Your task to perform on an android device: clear history in the chrome app Image 0: 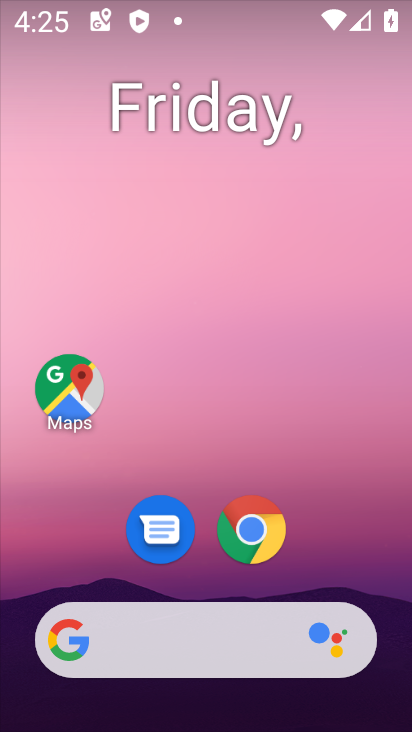
Step 0: click (258, 529)
Your task to perform on an android device: clear history in the chrome app Image 1: 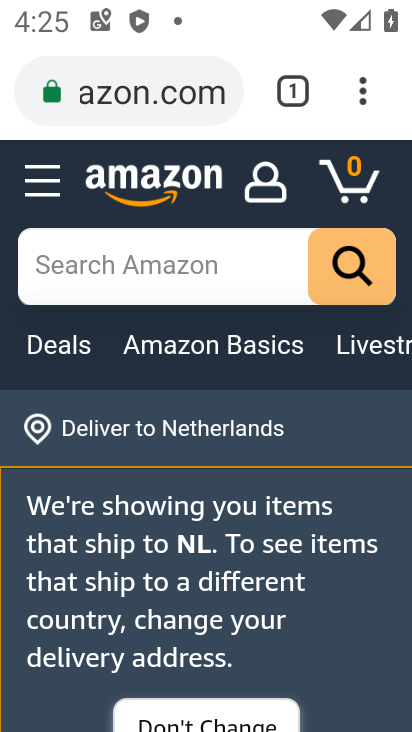
Step 1: click (361, 91)
Your task to perform on an android device: clear history in the chrome app Image 2: 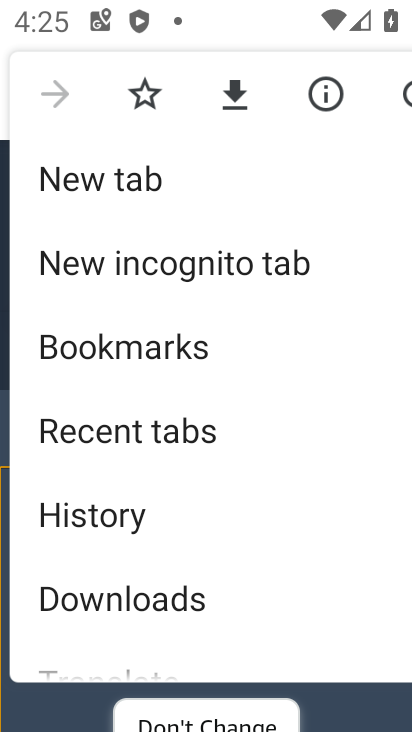
Step 2: click (135, 522)
Your task to perform on an android device: clear history in the chrome app Image 3: 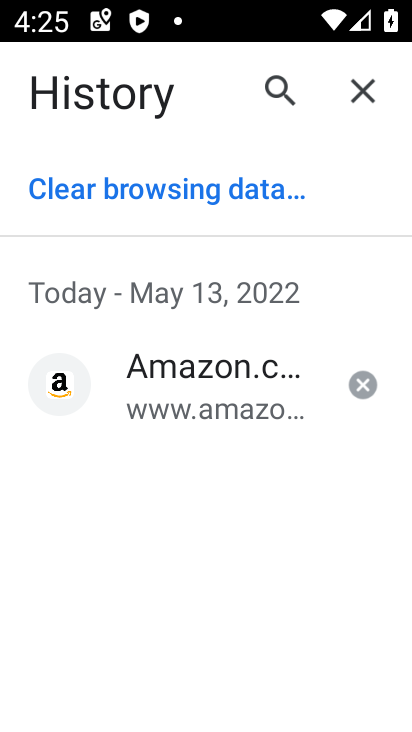
Step 3: click (205, 188)
Your task to perform on an android device: clear history in the chrome app Image 4: 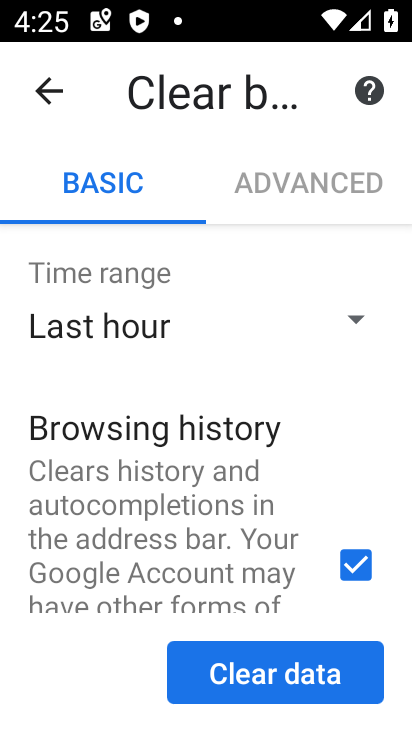
Step 4: click (252, 670)
Your task to perform on an android device: clear history in the chrome app Image 5: 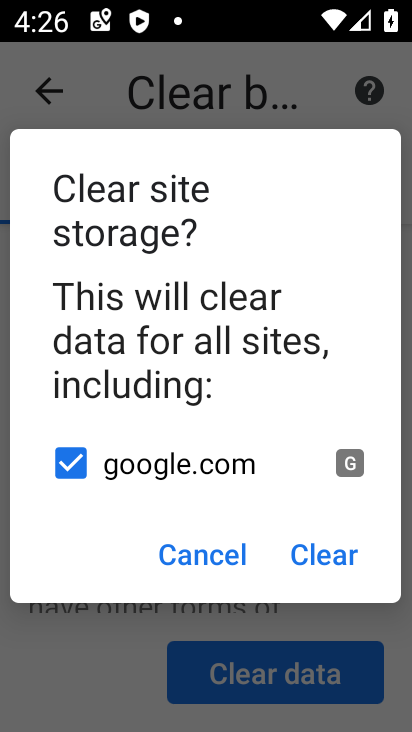
Step 5: click (331, 552)
Your task to perform on an android device: clear history in the chrome app Image 6: 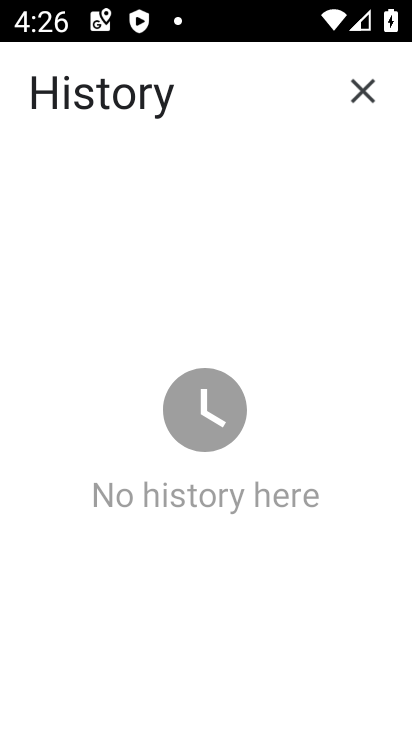
Step 6: task complete